Your task to perform on an android device: Empty the shopping cart on newegg. Image 0: 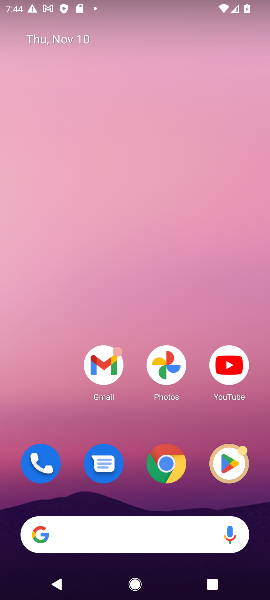
Step 0: press home button
Your task to perform on an android device: Empty the shopping cart on newegg. Image 1: 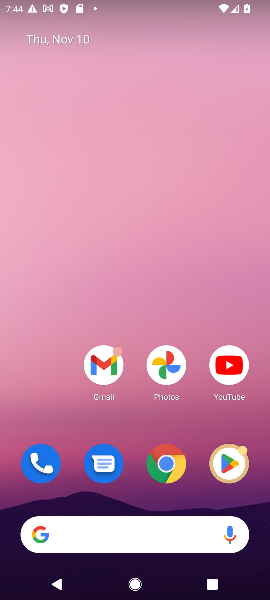
Step 1: click (166, 459)
Your task to perform on an android device: Empty the shopping cart on newegg. Image 2: 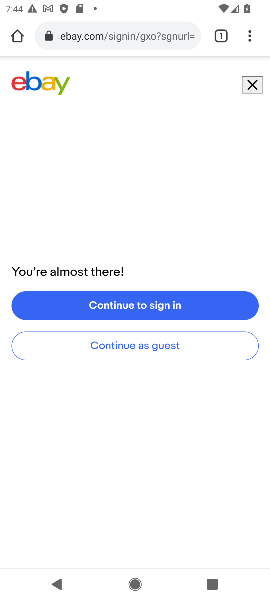
Step 2: click (156, 34)
Your task to perform on an android device: Empty the shopping cart on newegg. Image 3: 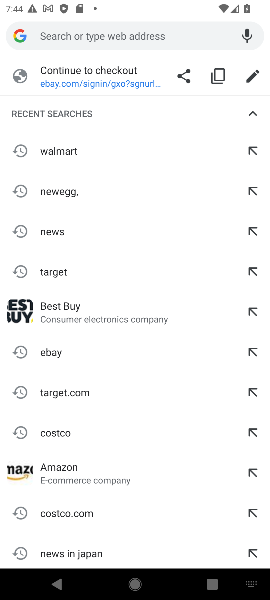
Step 3: click (54, 189)
Your task to perform on an android device: Empty the shopping cart on newegg. Image 4: 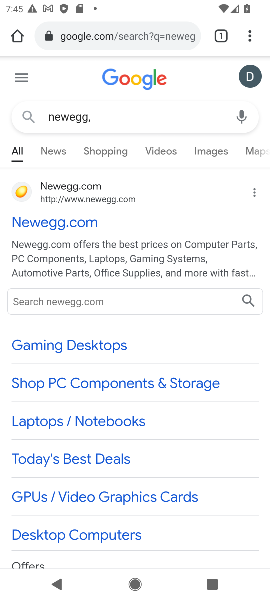
Step 4: click (58, 223)
Your task to perform on an android device: Empty the shopping cart on newegg. Image 5: 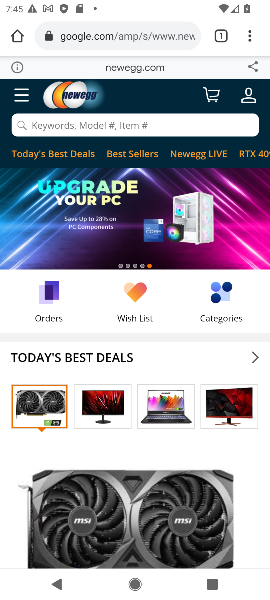
Step 5: click (211, 96)
Your task to perform on an android device: Empty the shopping cart on newegg. Image 6: 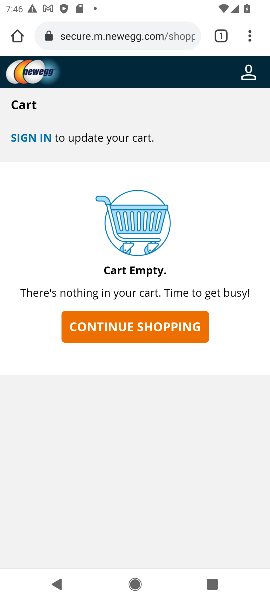
Step 6: task complete